Your task to perform on an android device: allow cookies in the chrome app Image 0: 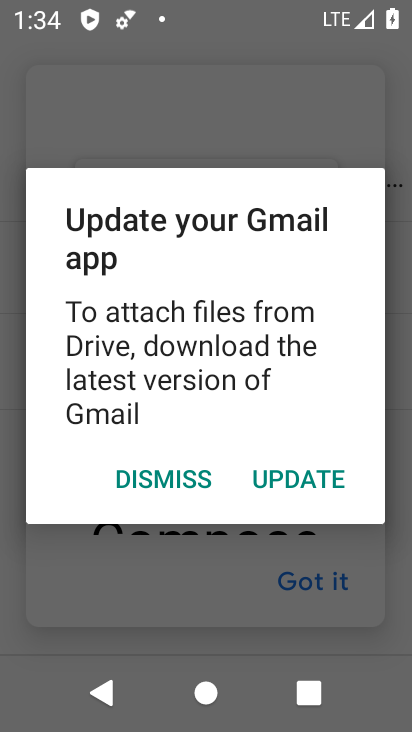
Step 0: press home button
Your task to perform on an android device: allow cookies in the chrome app Image 1: 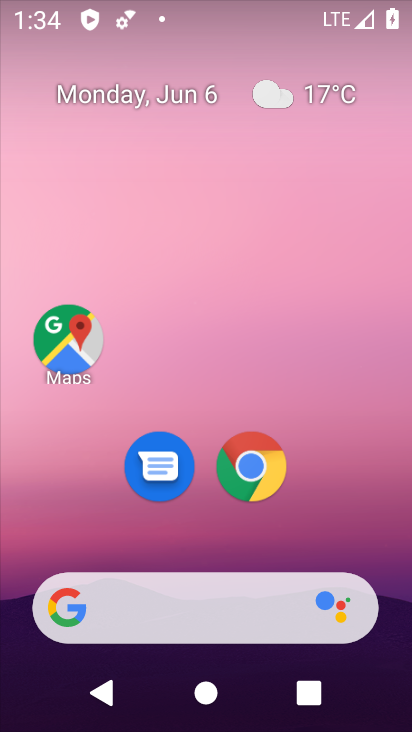
Step 1: click (247, 472)
Your task to perform on an android device: allow cookies in the chrome app Image 2: 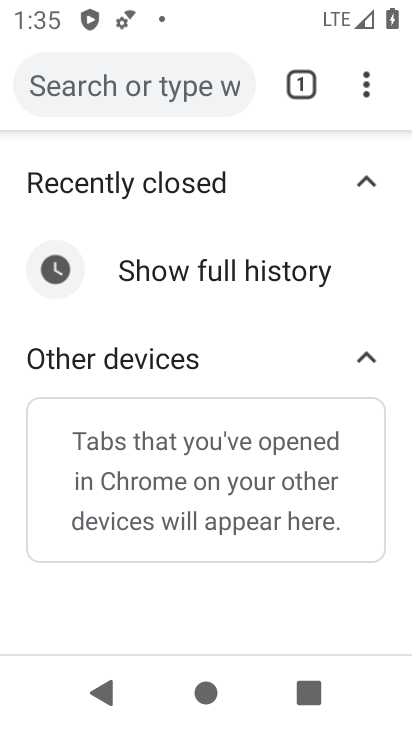
Step 2: drag from (369, 84) to (188, 526)
Your task to perform on an android device: allow cookies in the chrome app Image 3: 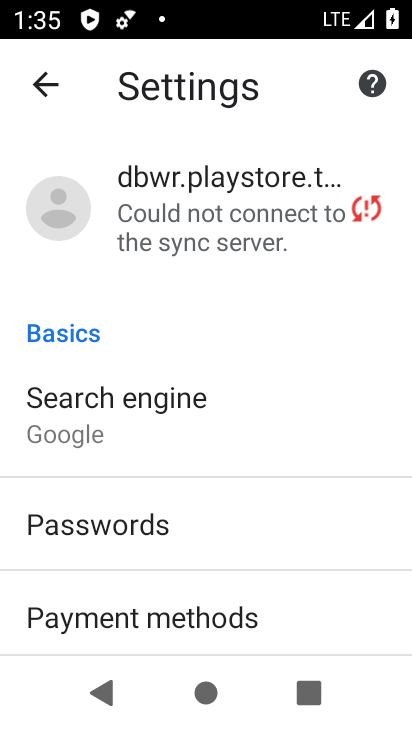
Step 3: drag from (314, 607) to (274, 132)
Your task to perform on an android device: allow cookies in the chrome app Image 4: 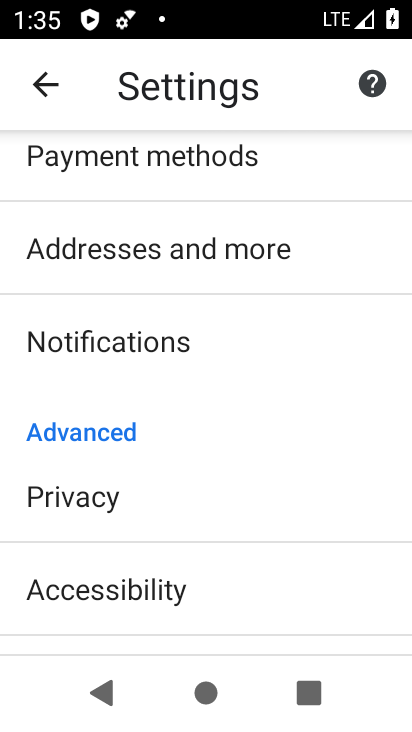
Step 4: drag from (273, 582) to (257, 229)
Your task to perform on an android device: allow cookies in the chrome app Image 5: 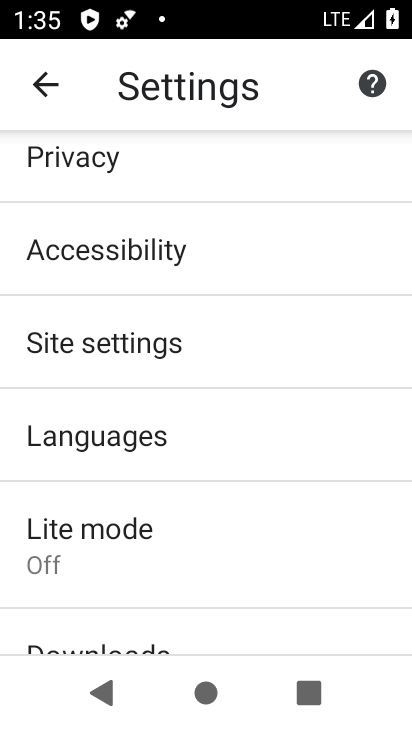
Step 5: click (97, 339)
Your task to perform on an android device: allow cookies in the chrome app Image 6: 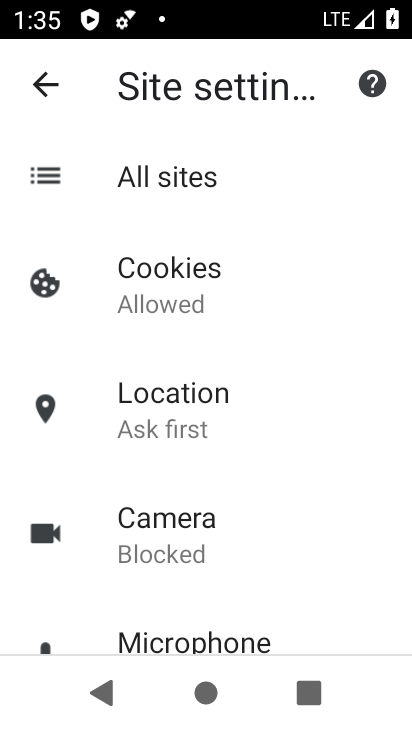
Step 6: click (192, 272)
Your task to perform on an android device: allow cookies in the chrome app Image 7: 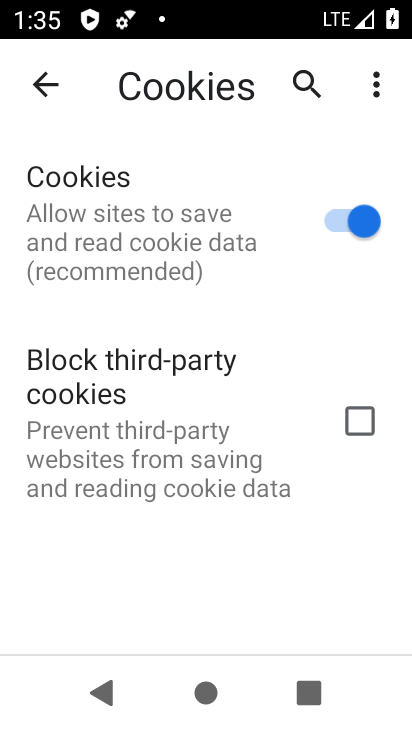
Step 7: task complete